Your task to perform on an android device: open app "Pluto TV - Live TV and Movies" (install if not already installed), go to login, and select forgot password Image 0: 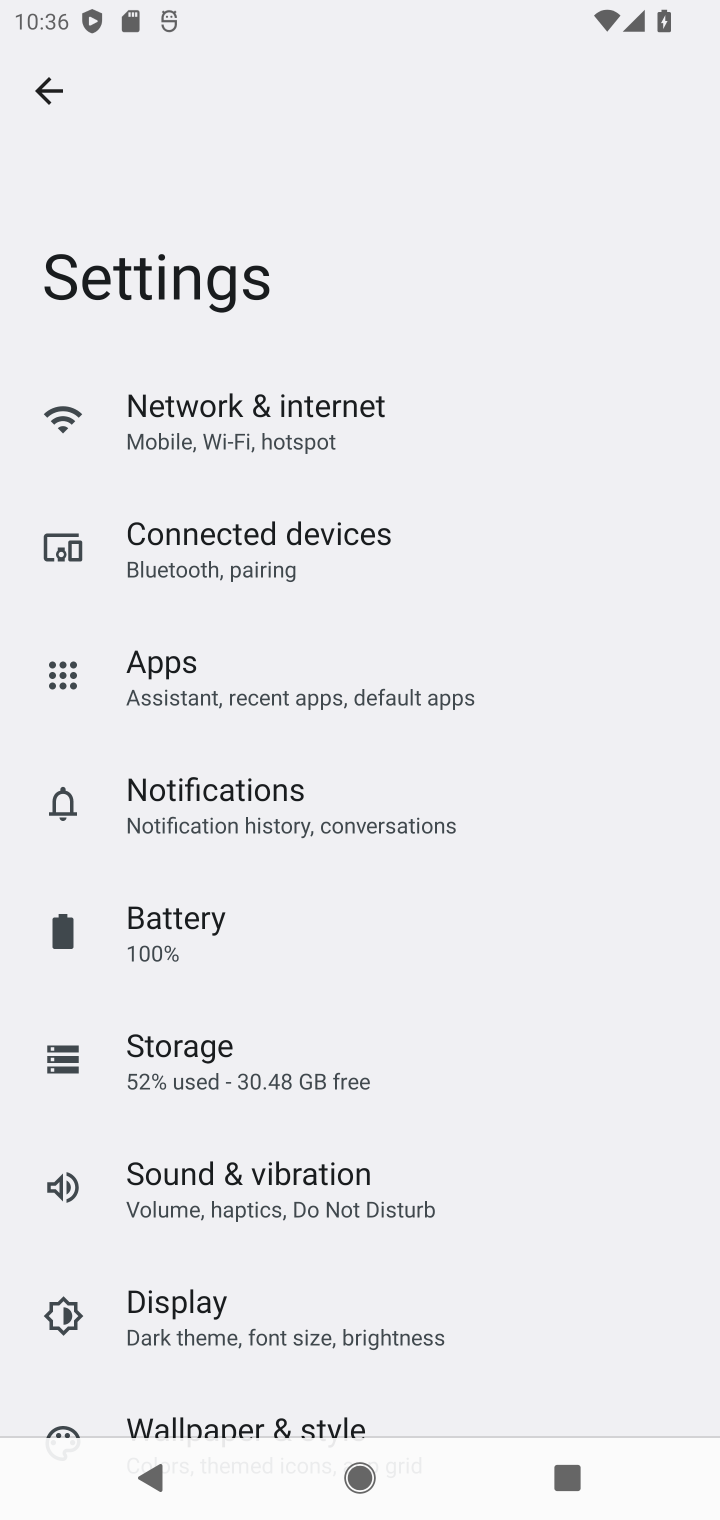
Step 0: press home button
Your task to perform on an android device: open app "Pluto TV - Live TV and Movies" (install if not already installed), go to login, and select forgot password Image 1: 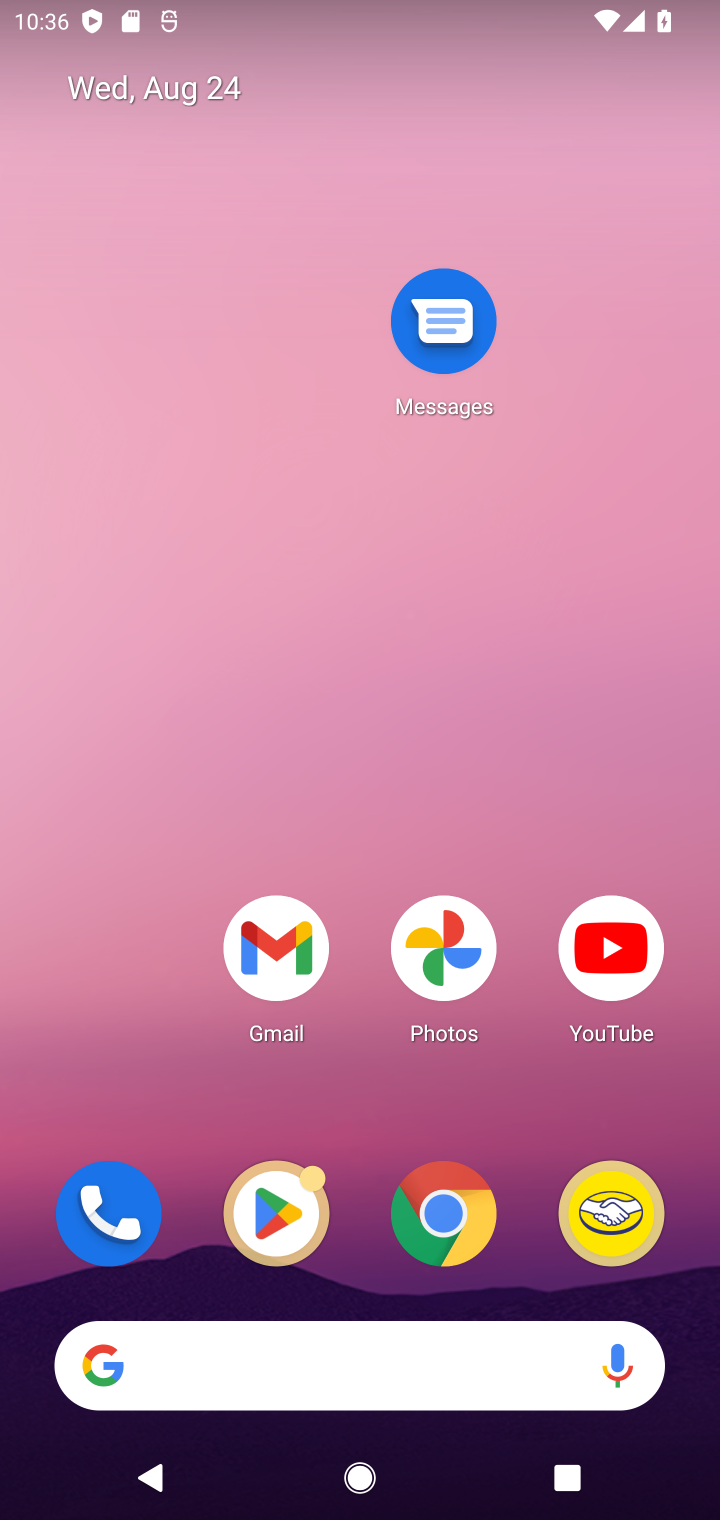
Step 1: click (272, 1213)
Your task to perform on an android device: open app "Pluto TV - Live TV and Movies" (install if not already installed), go to login, and select forgot password Image 2: 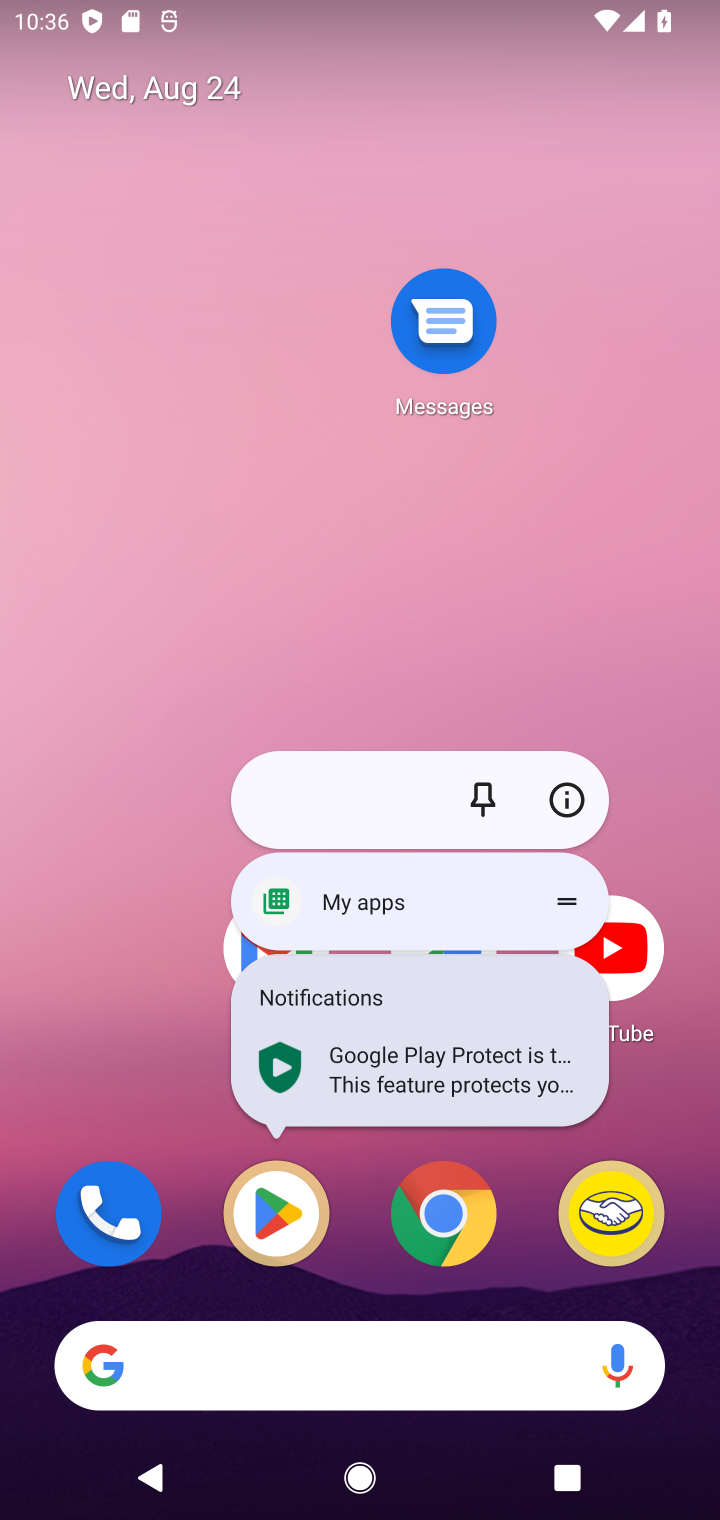
Step 2: click (233, 1175)
Your task to perform on an android device: open app "Pluto TV - Live TV and Movies" (install if not already installed), go to login, and select forgot password Image 3: 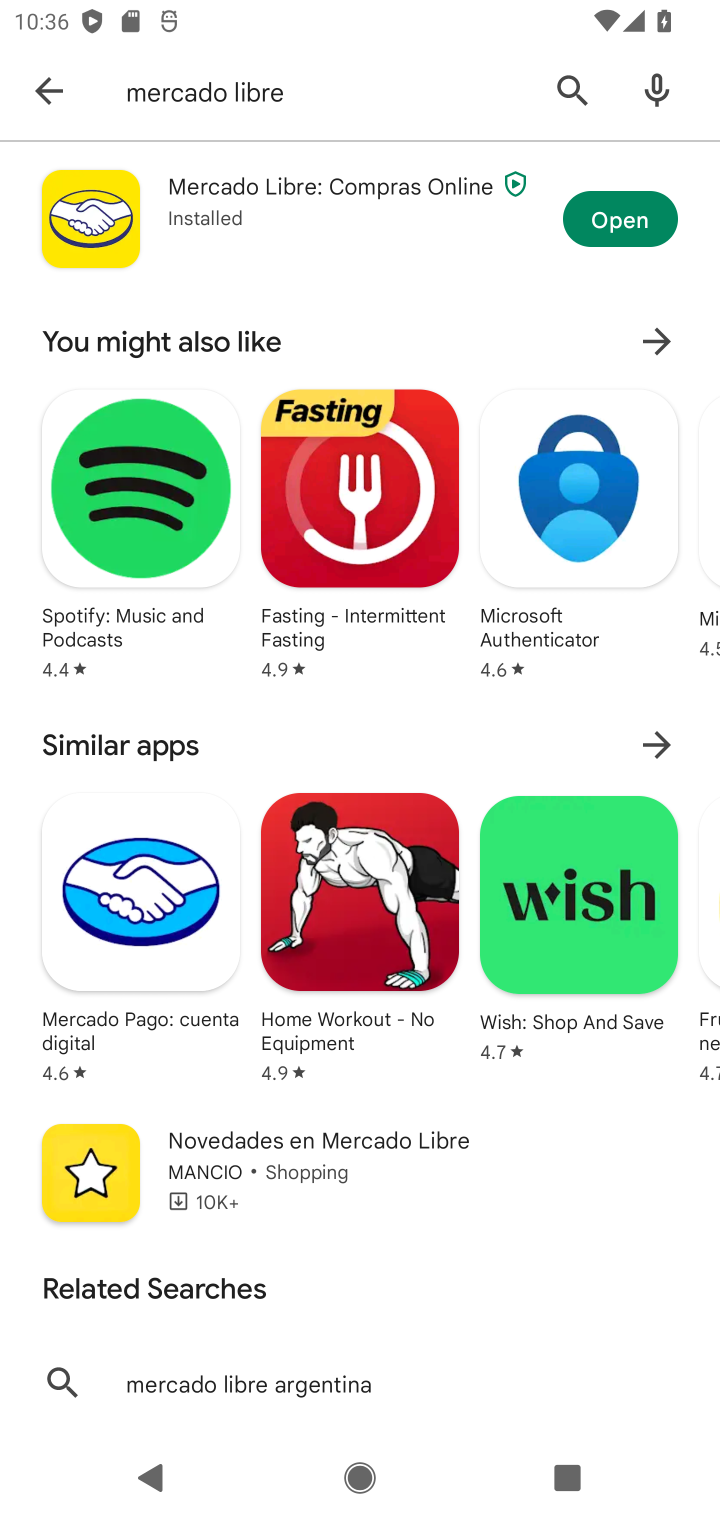
Step 3: click (208, 75)
Your task to perform on an android device: open app "Pluto TV - Live TV and Movies" (install if not already installed), go to login, and select forgot password Image 4: 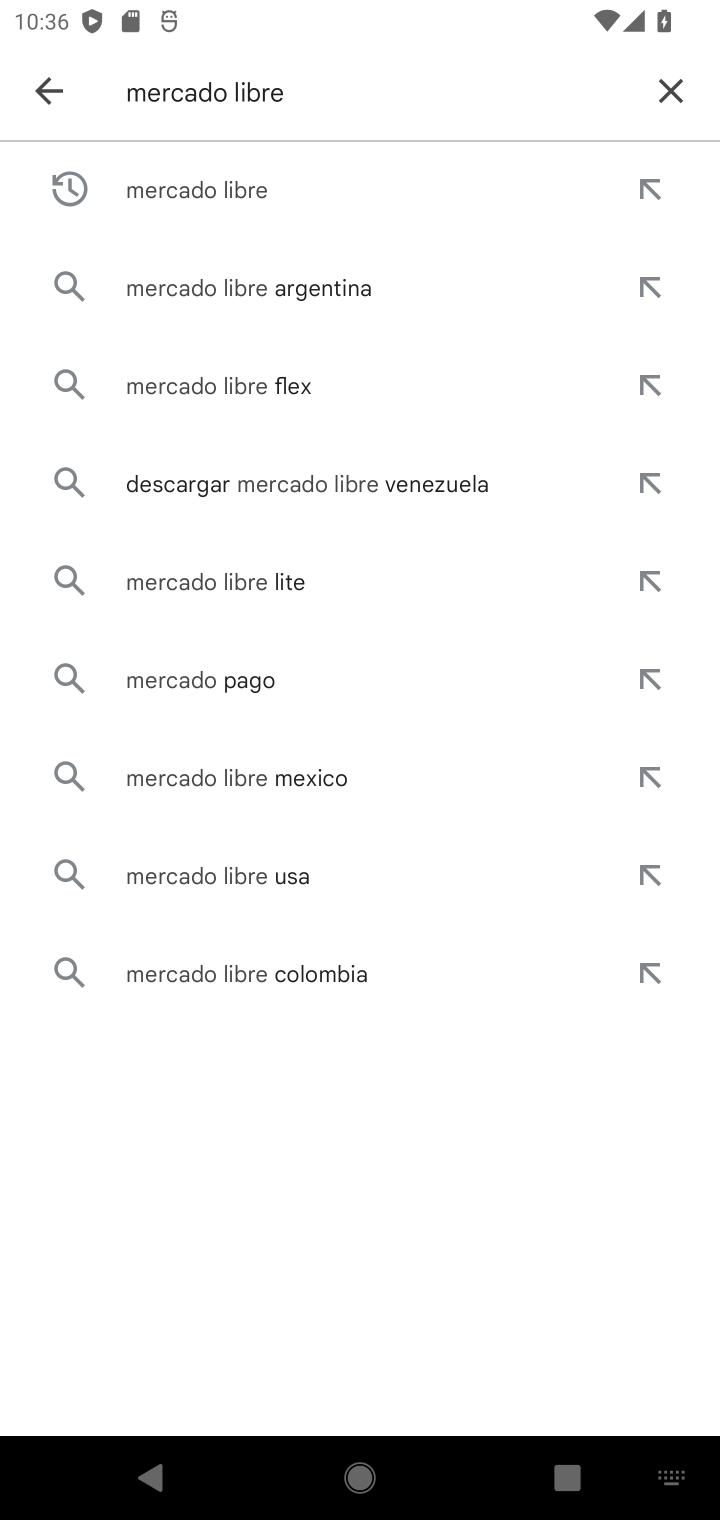
Step 4: click (676, 103)
Your task to perform on an android device: open app "Pluto TV - Live TV and Movies" (install if not already installed), go to login, and select forgot password Image 5: 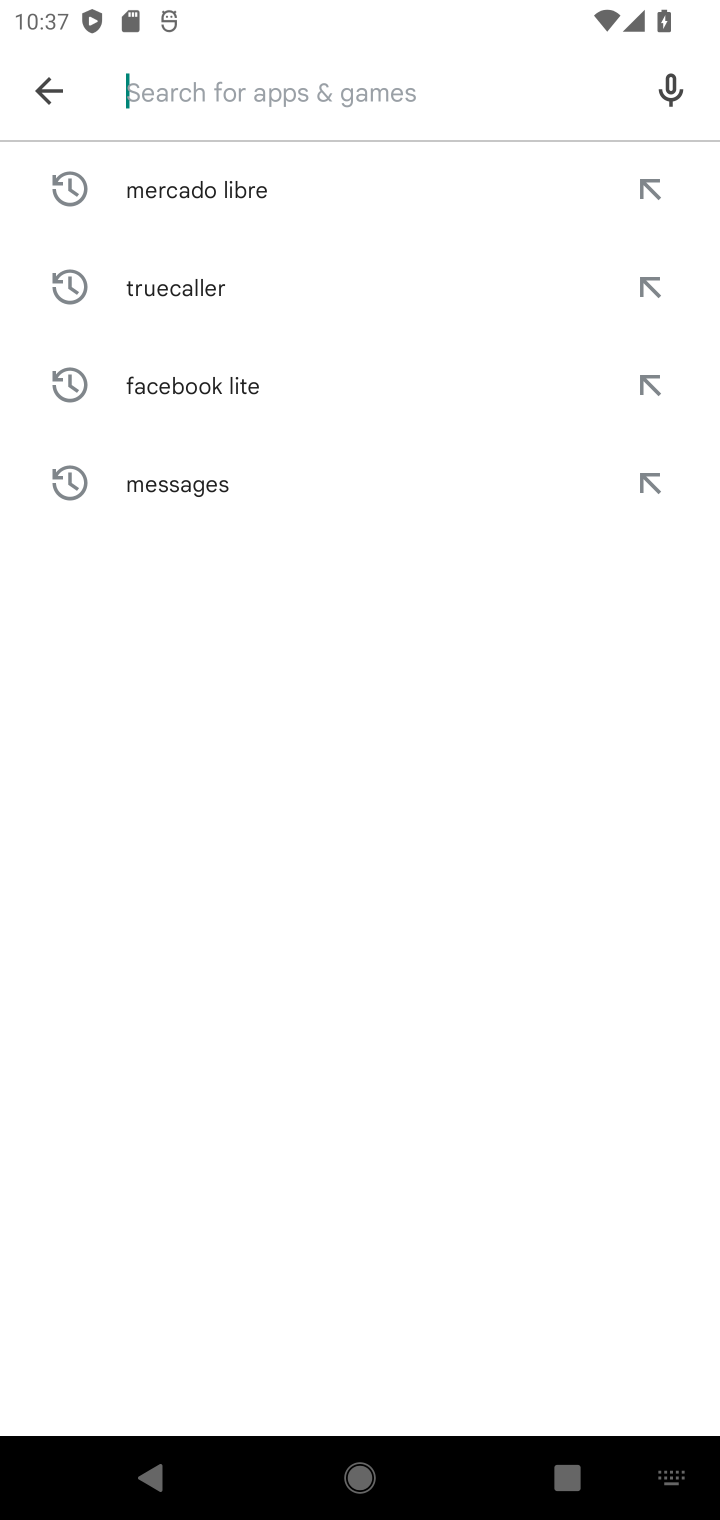
Step 5: type "pluto tv"
Your task to perform on an android device: open app "Pluto TV - Live TV and Movies" (install if not already installed), go to login, and select forgot password Image 6: 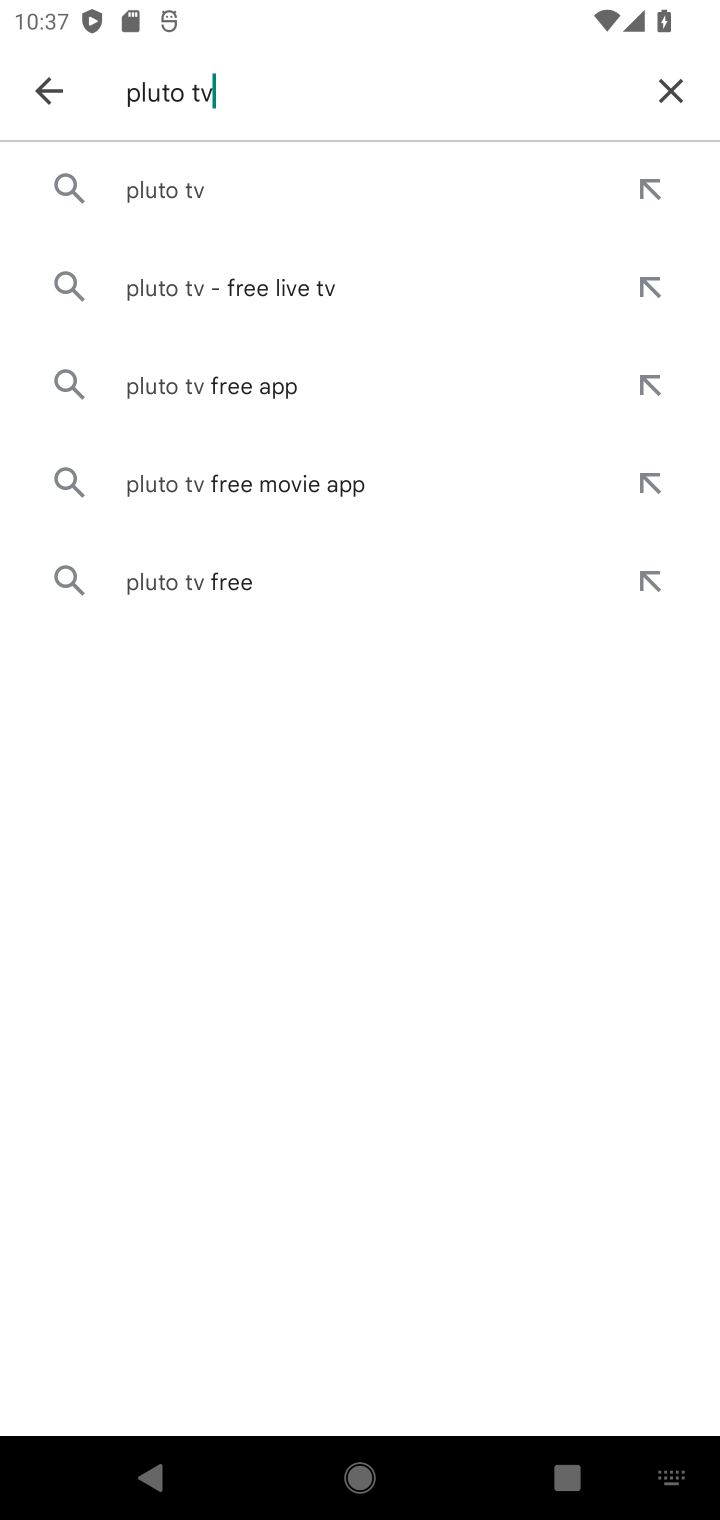
Step 6: click (162, 188)
Your task to perform on an android device: open app "Pluto TV - Live TV and Movies" (install if not already installed), go to login, and select forgot password Image 7: 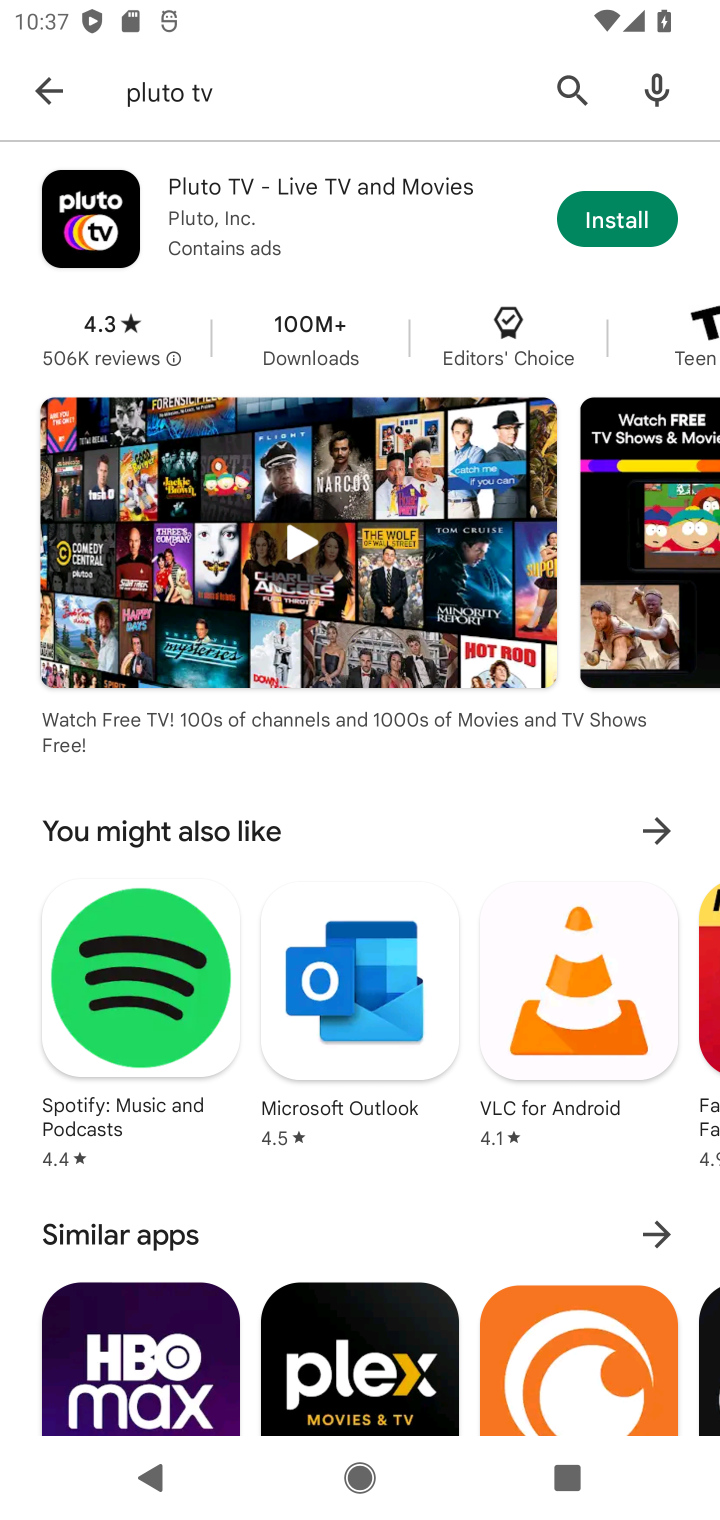
Step 7: click (615, 230)
Your task to perform on an android device: open app "Pluto TV - Live TV and Movies" (install if not already installed), go to login, and select forgot password Image 8: 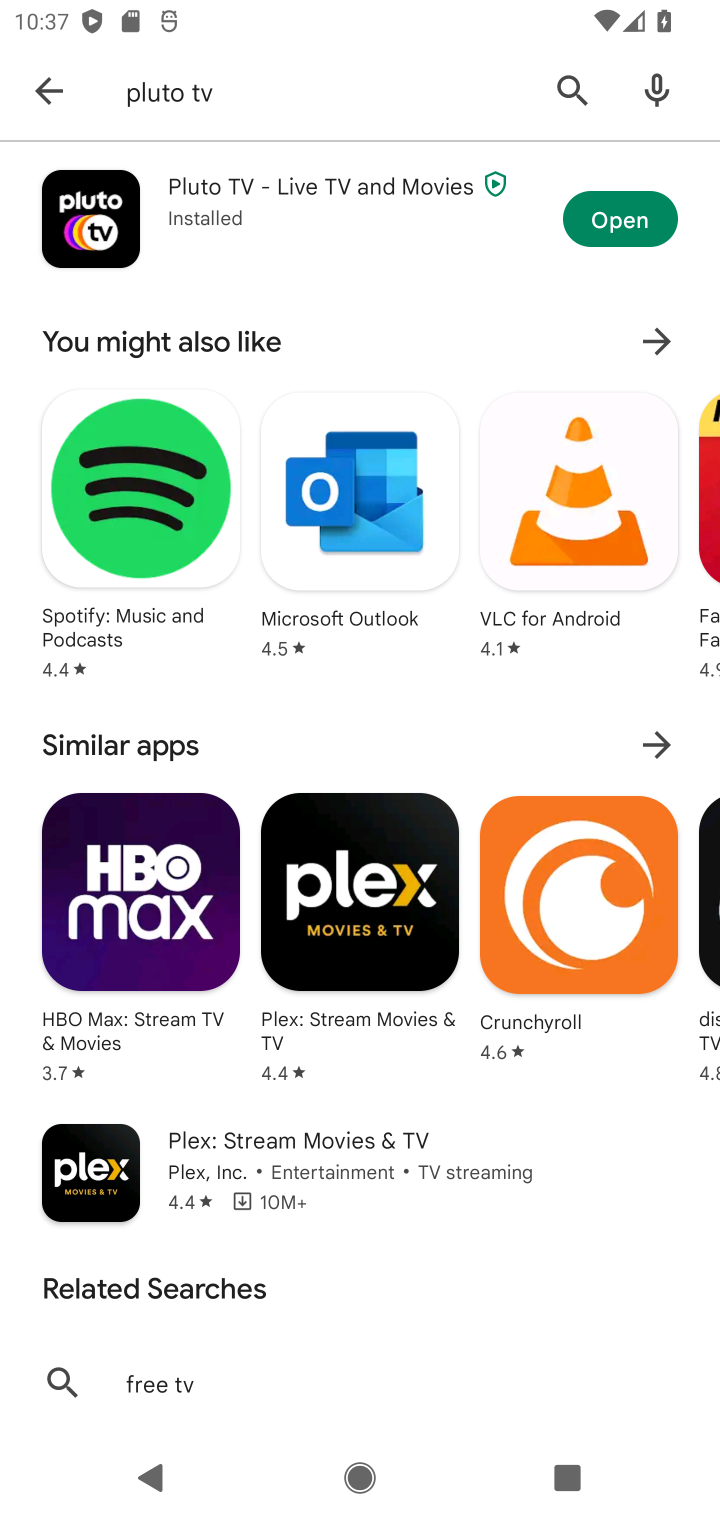
Step 8: click (644, 205)
Your task to perform on an android device: open app "Pluto TV - Live TV and Movies" (install if not already installed), go to login, and select forgot password Image 9: 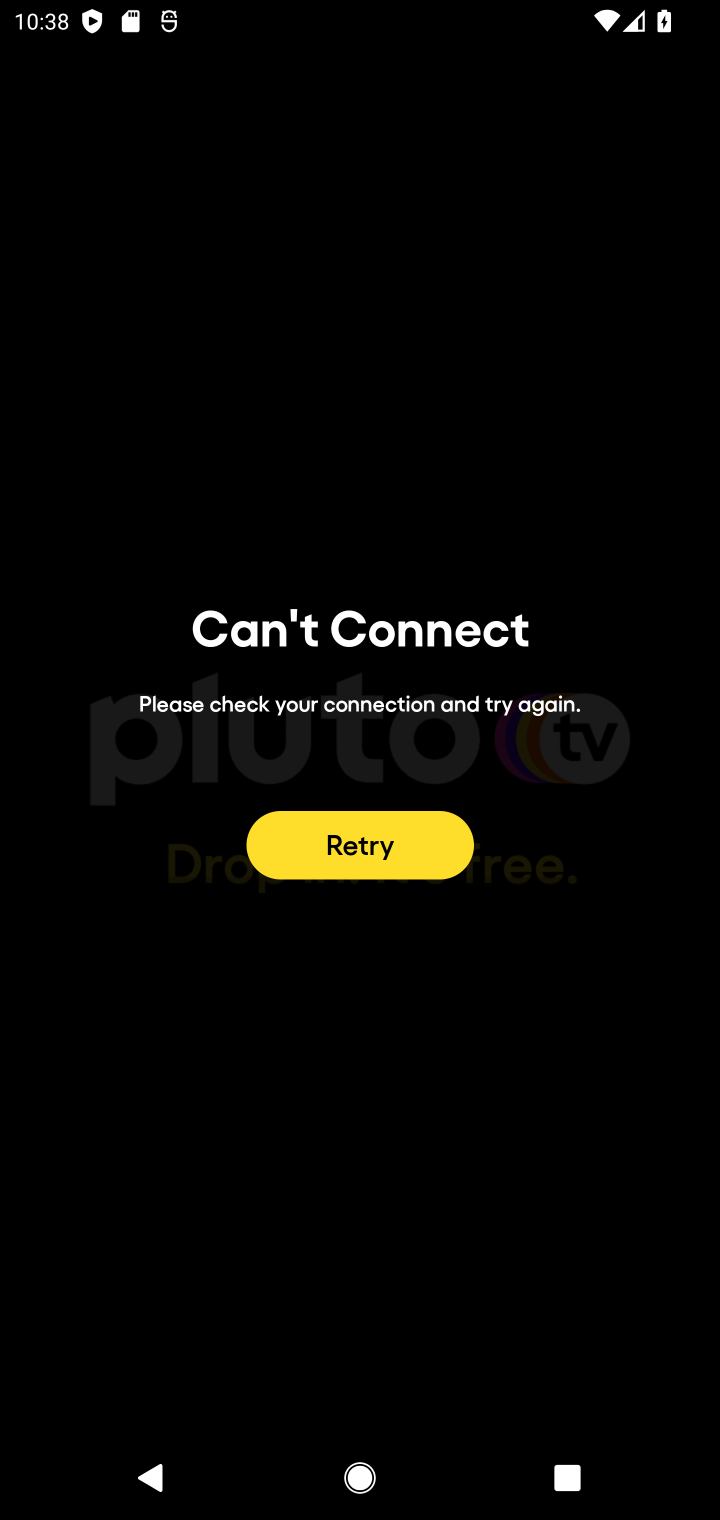
Step 9: click (330, 868)
Your task to perform on an android device: open app "Pluto TV - Live TV and Movies" (install if not already installed), go to login, and select forgot password Image 10: 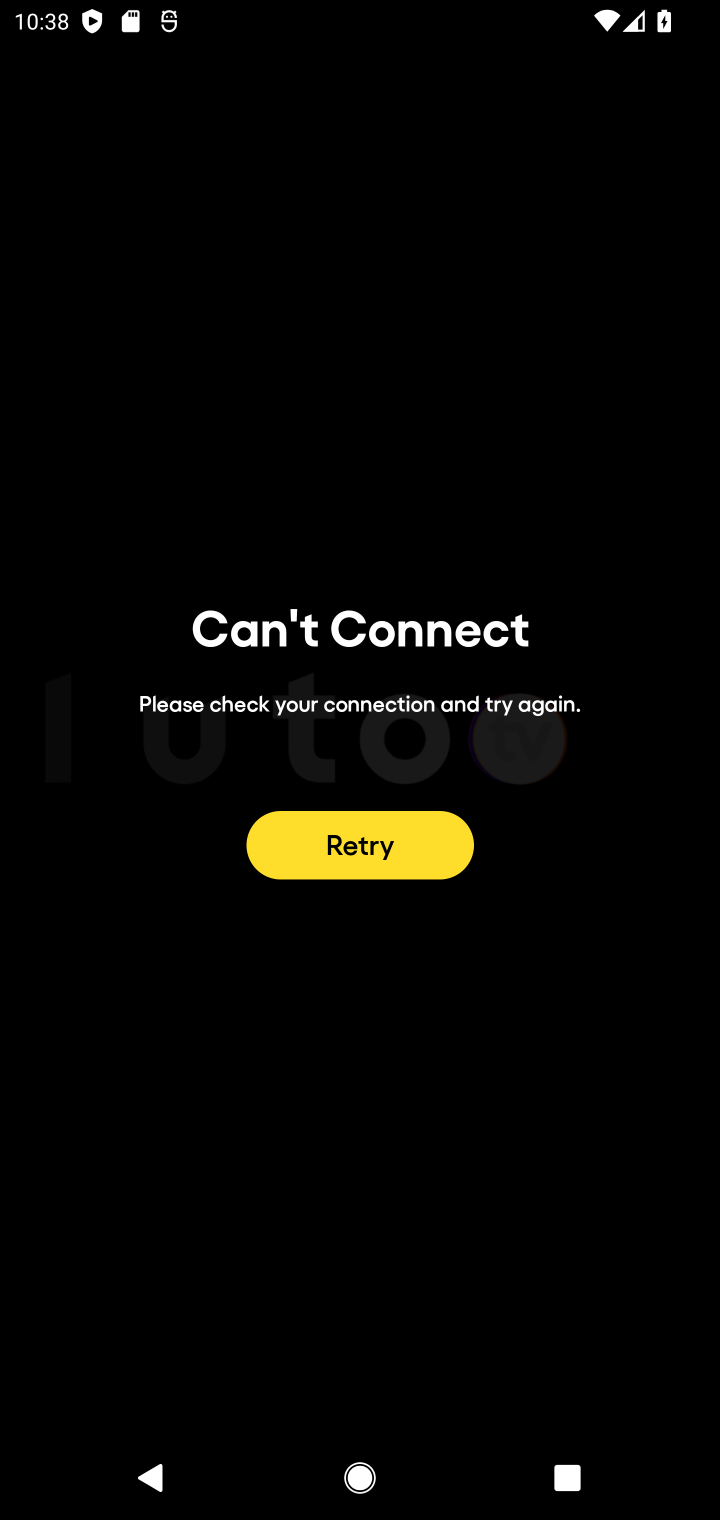
Step 10: click (326, 864)
Your task to perform on an android device: open app "Pluto TV - Live TV and Movies" (install if not already installed), go to login, and select forgot password Image 11: 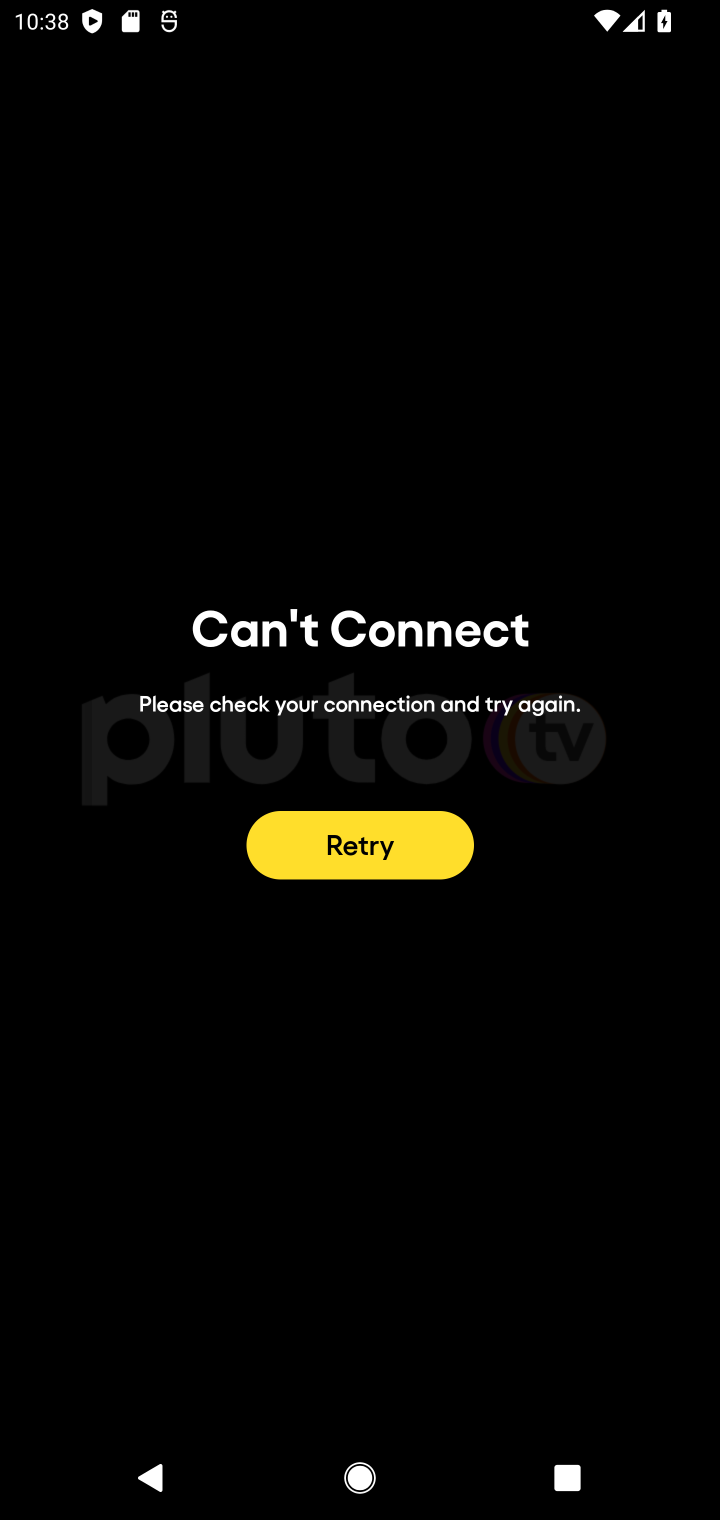
Step 11: click (326, 864)
Your task to perform on an android device: open app "Pluto TV - Live TV and Movies" (install if not already installed), go to login, and select forgot password Image 12: 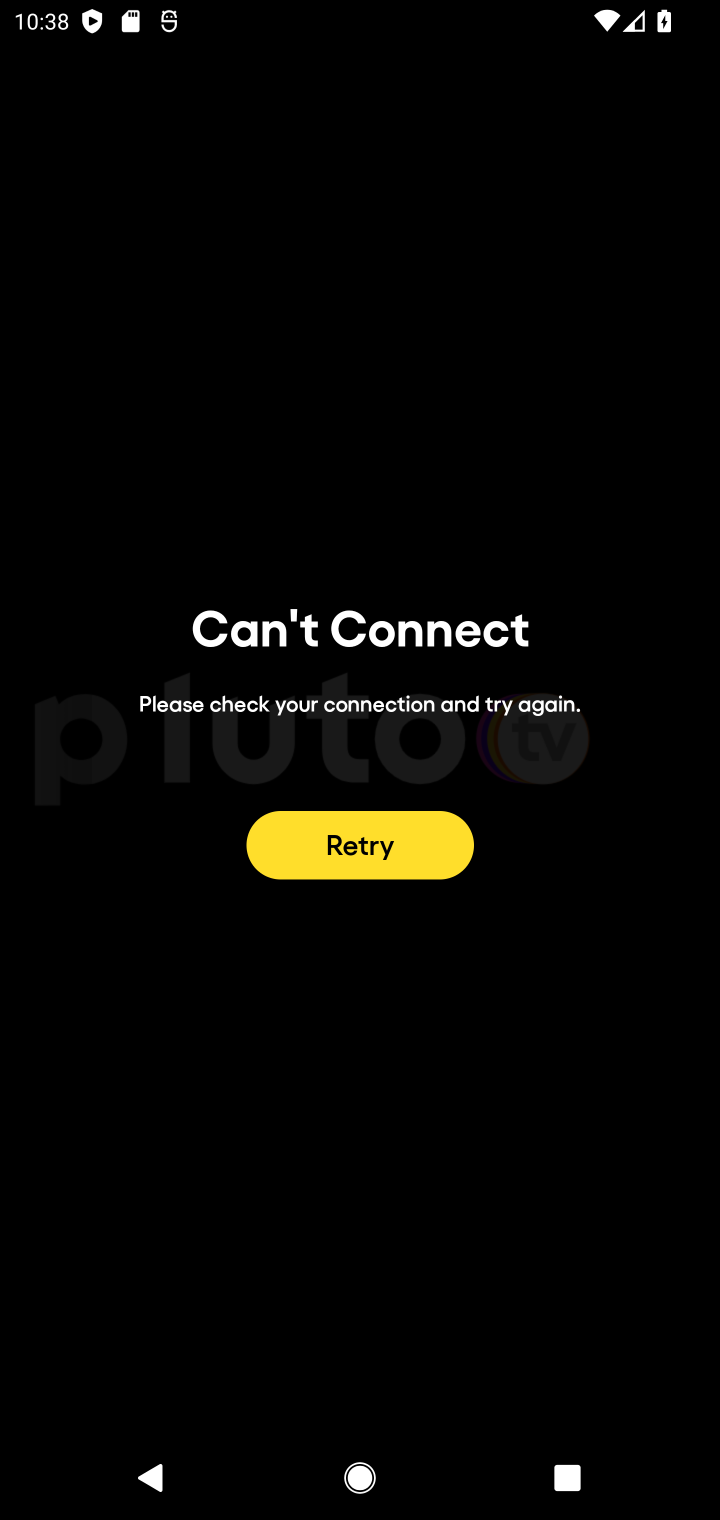
Step 12: click (326, 864)
Your task to perform on an android device: open app "Pluto TV - Live TV and Movies" (install if not already installed), go to login, and select forgot password Image 13: 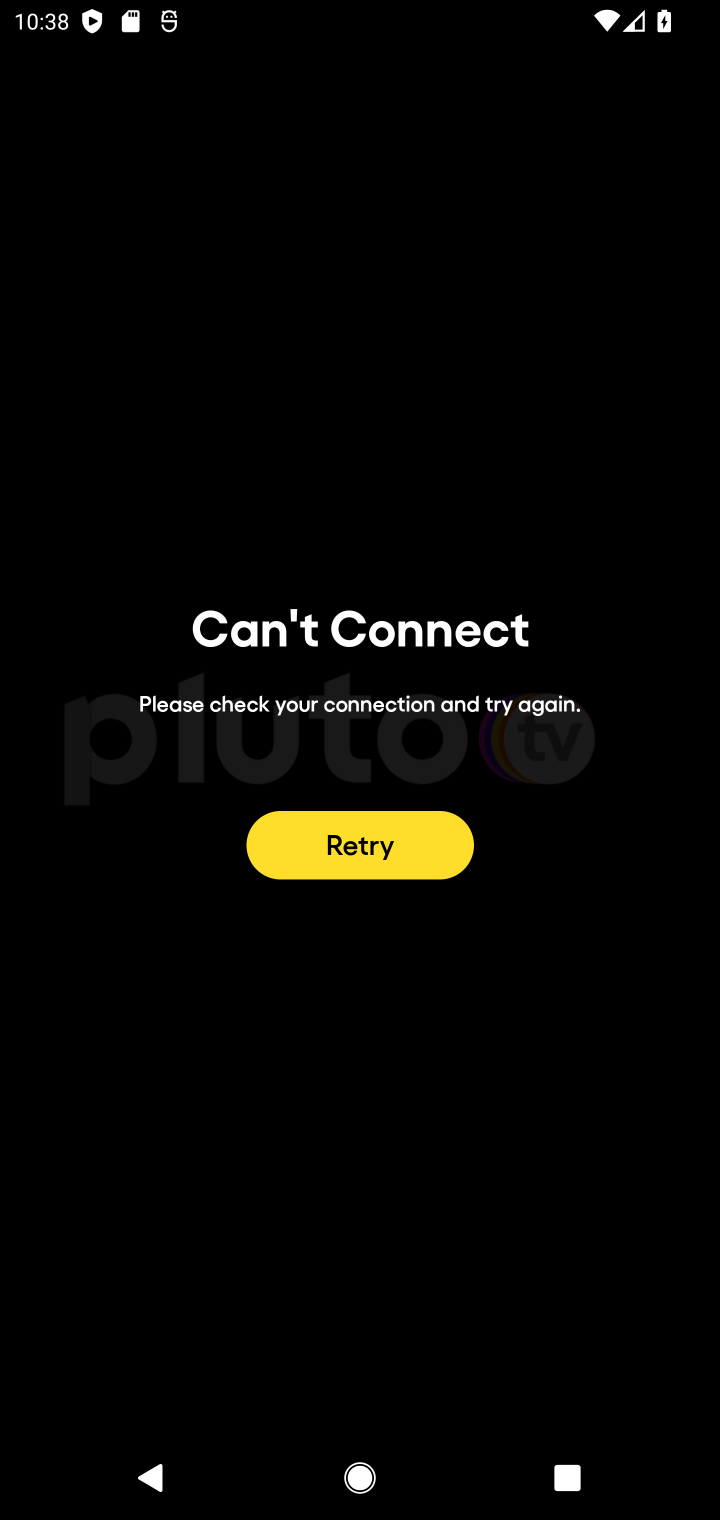
Step 13: click (340, 824)
Your task to perform on an android device: open app "Pluto TV - Live TV and Movies" (install if not already installed), go to login, and select forgot password Image 14: 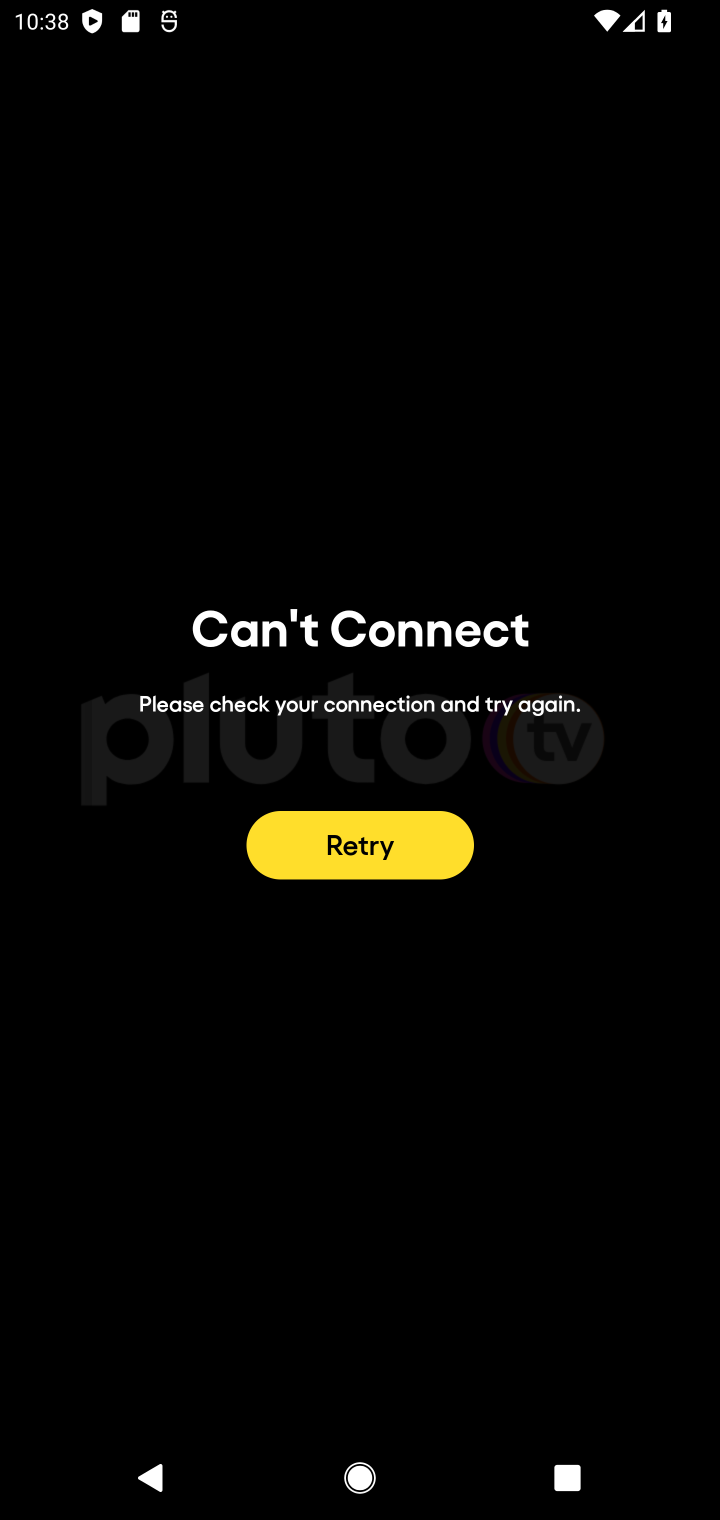
Step 14: task complete